Your task to perform on an android device: Open calendar and show me the third week of next month Image 0: 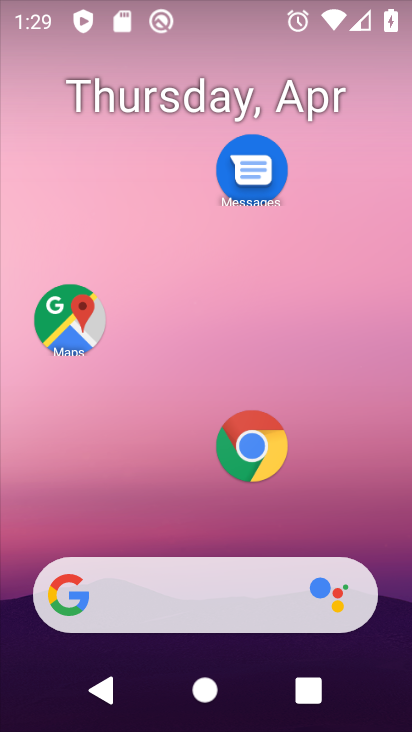
Step 0: drag from (142, 495) to (15, 372)
Your task to perform on an android device: Open calendar and show me the third week of next month Image 1: 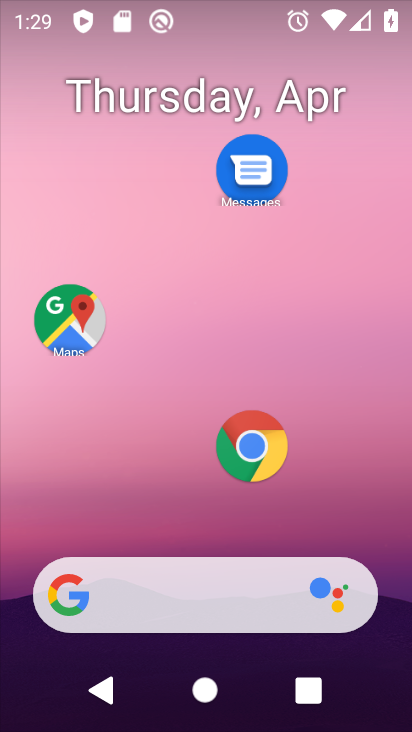
Step 1: drag from (143, 523) to (205, 39)
Your task to perform on an android device: Open calendar and show me the third week of next month Image 2: 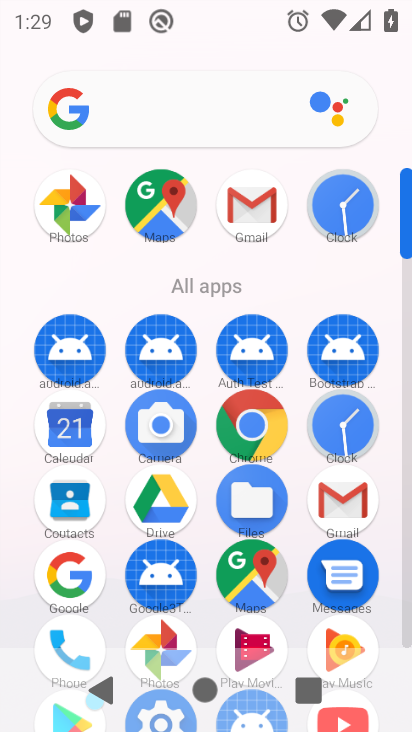
Step 2: click (76, 431)
Your task to perform on an android device: Open calendar and show me the third week of next month Image 3: 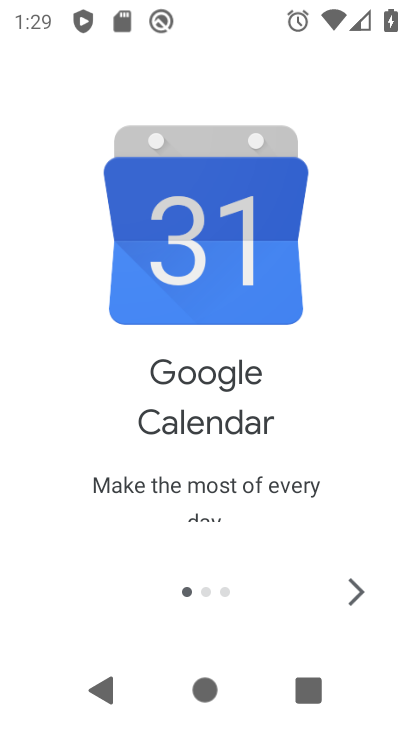
Step 3: click (358, 587)
Your task to perform on an android device: Open calendar and show me the third week of next month Image 4: 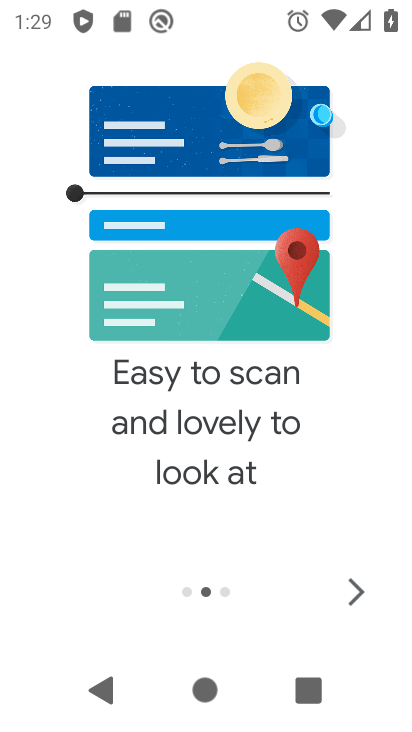
Step 4: click (358, 587)
Your task to perform on an android device: Open calendar and show me the third week of next month Image 5: 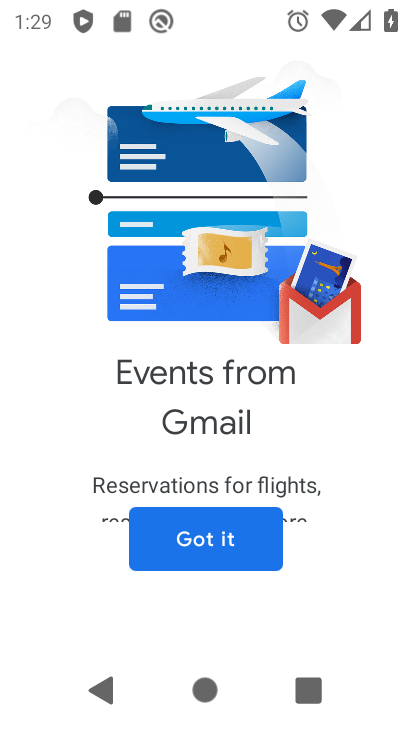
Step 5: click (228, 544)
Your task to perform on an android device: Open calendar and show me the third week of next month Image 6: 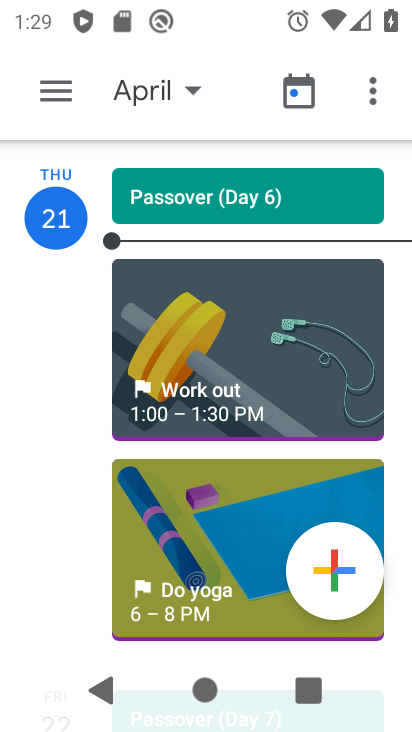
Step 6: click (193, 87)
Your task to perform on an android device: Open calendar and show me the third week of next month Image 7: 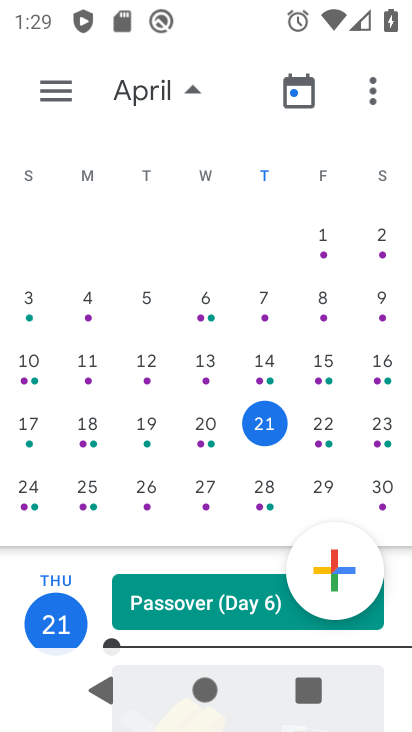
Step 7: drag from (352, 408) to (0, 359)
Your task to perform on an android device: Open calendar and show me the third week of next month Image 8: 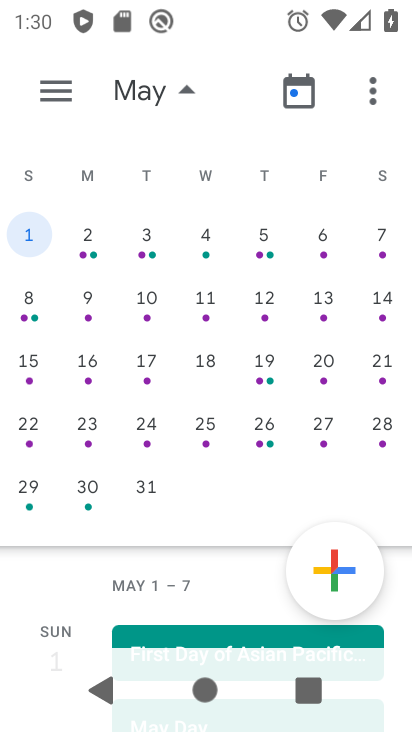
Step 8: click (94, 368)
Your task to perform on an android device: Open calendar and show me the third week of next month Image 9: 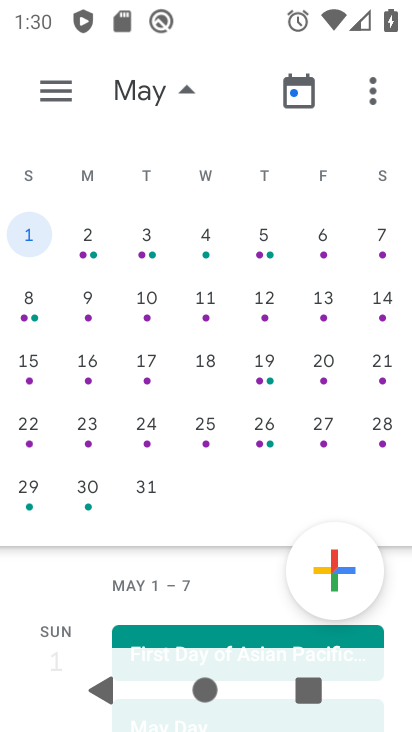
Step 9: click (87, 366)
Your task to perform on an android device: Open calendar and show me the third week of next month Image 10: 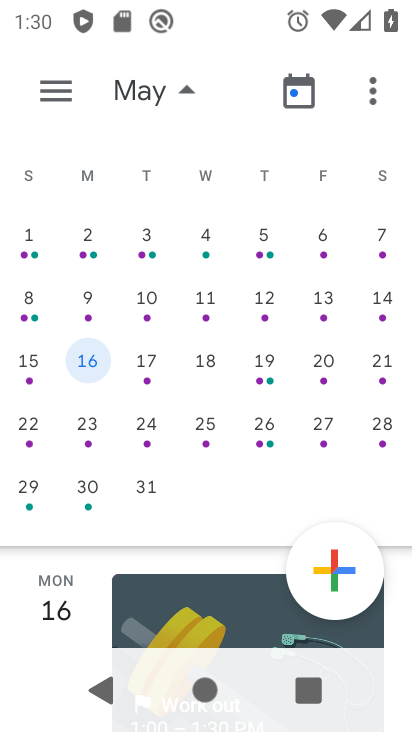
Step 10: click (58, 80)
Your task to perform on an android device: Open calendar and show me the third week of next month Image 11: 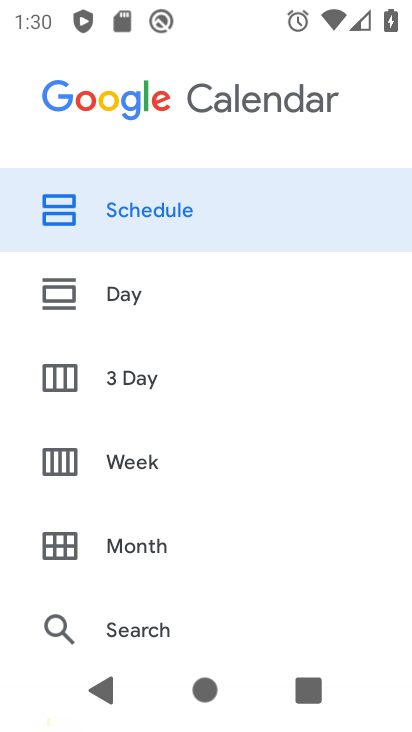
Step 11: click (130, 458)
Your task to perform on an android device: Open calendar and show me the third week of next month Image 12: 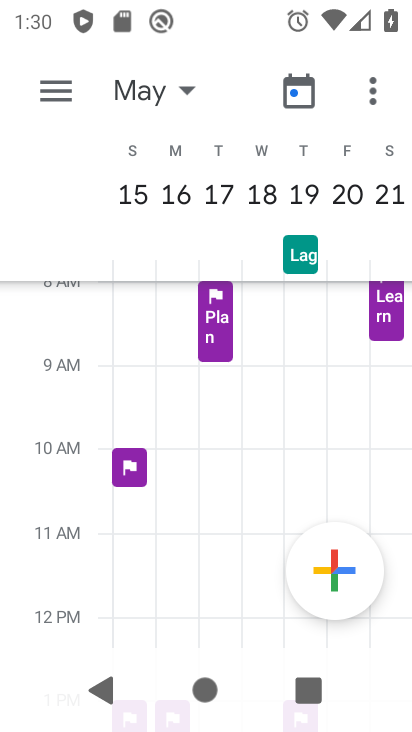
Step 12: task complete